Your task to perform on an android device: turn off smart reply in the gmail app Image 0: 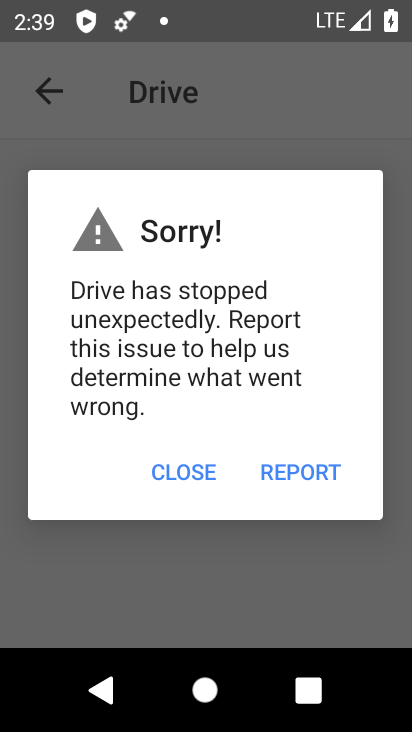
Step 0: press home button
Your task to perform on an android device: turn off smart reply in the gmail app Image 1: 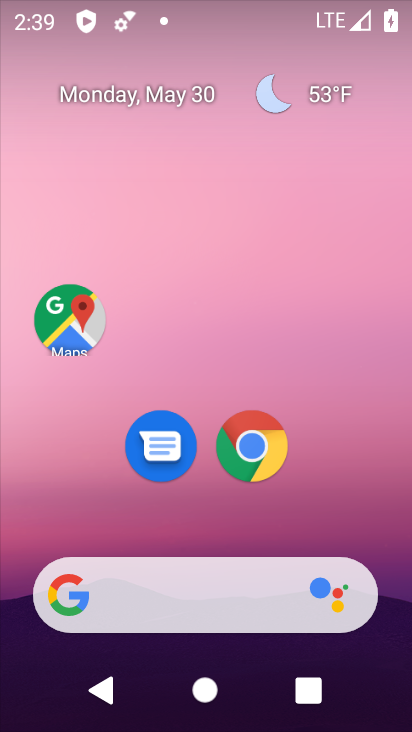
Step 1: drag from (319, 485) to (237, 9)
Your task to perform on an android device: turn off smart reply in the gmail app Image 2: 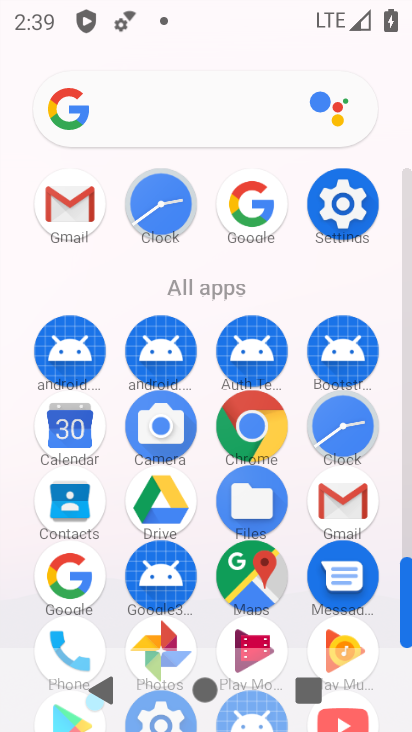
Step 2: click (67, 202)
Your task to perform on an android device: turn off smart reply in the gmail app Image 3: 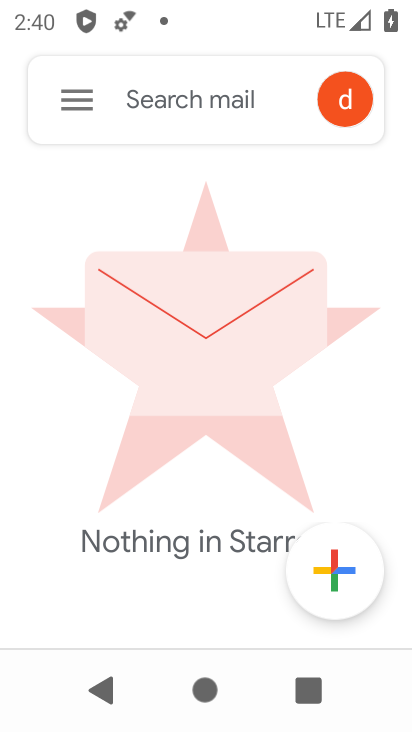
Step 3: click (83, 96)
Your task to perform on an android device: turn off smart reply in the gmail app Image 4: 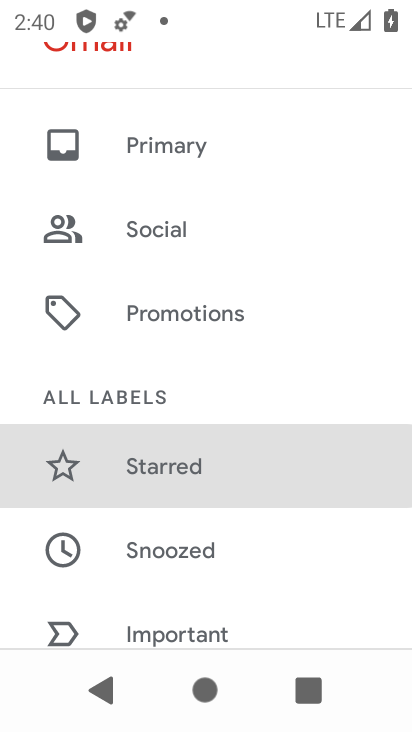
Step 4: drag from (154, 507) to (213, 335)
Your task to perform on an android device: turn off smart reply in the gmail app Image 5: 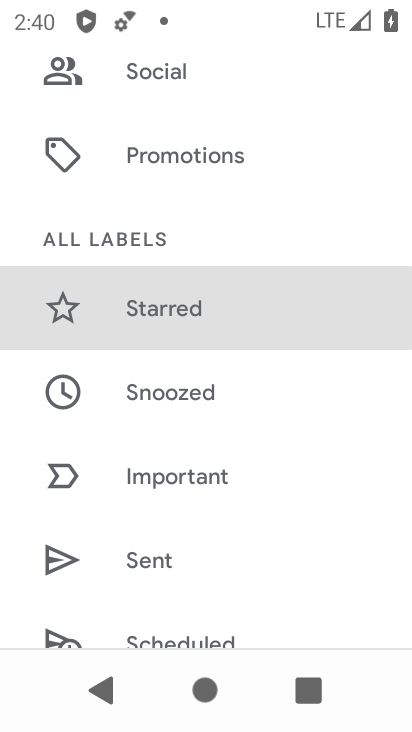
Step 5: drag from (165, 440) to (211, 302)
Your task to perform on an android device: turn off smart reply in the gmail app Image 6: 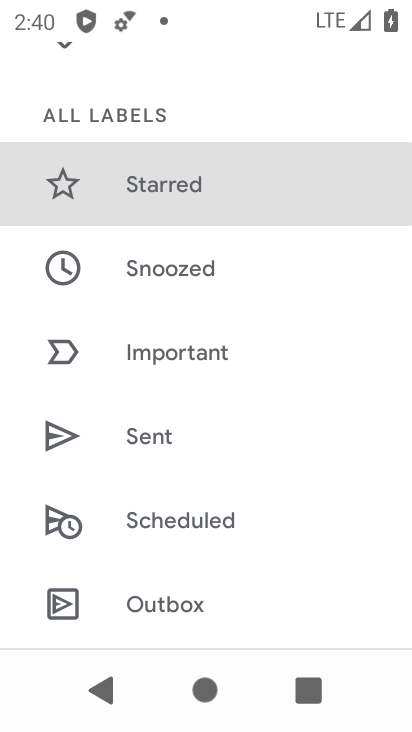
Step 6: drag from (145, 484) to (242, 372)
Your task to perform on an android device: turn off smart reply in the gmail app Image 7: 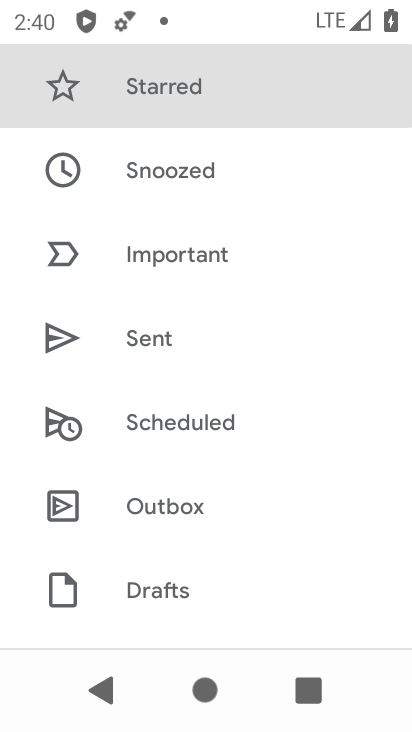
Step 7: drag from (136, 537) to (247, 390)
Your task to perform on an android device: turn off smart reply in the gmail app Image 8: 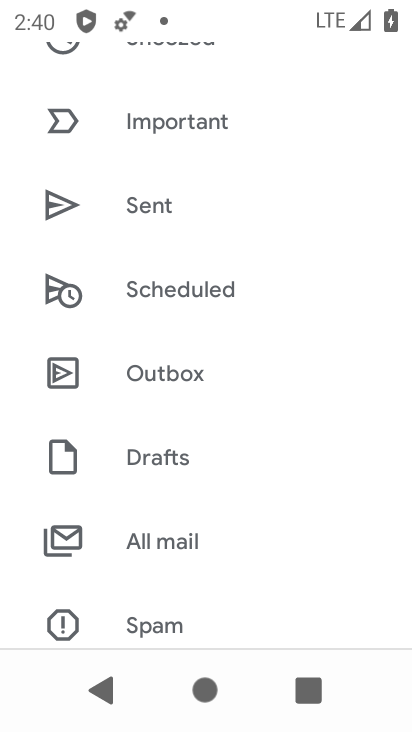
Step 8: drag from (178, 507) to (232, 428)
Your task to perform on an android device: turn off smart reply in the gmail app Image 9: 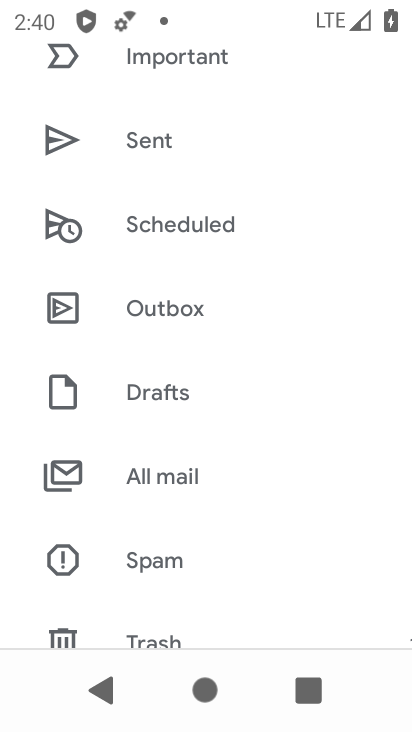
Step 9: drag from (163, 526) to (225, 420)
Your task to perform on an android device: turn off smart reply in the gmail app Image 10: 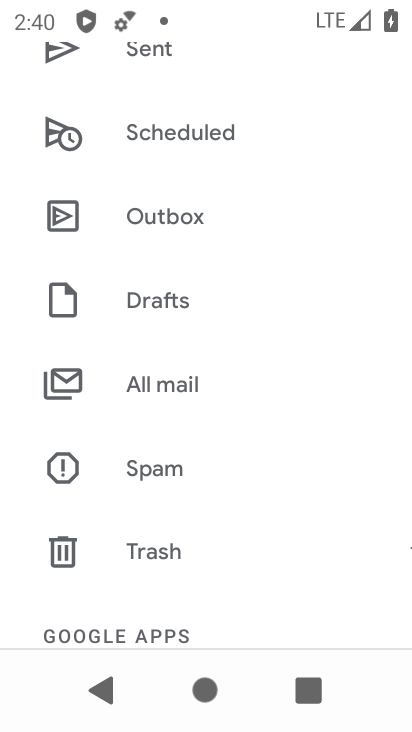
Step 10: drag from (161, 522) to (235, 424)
Your task to perform on an android device: turn off smart reply in the gmail app Image 11: 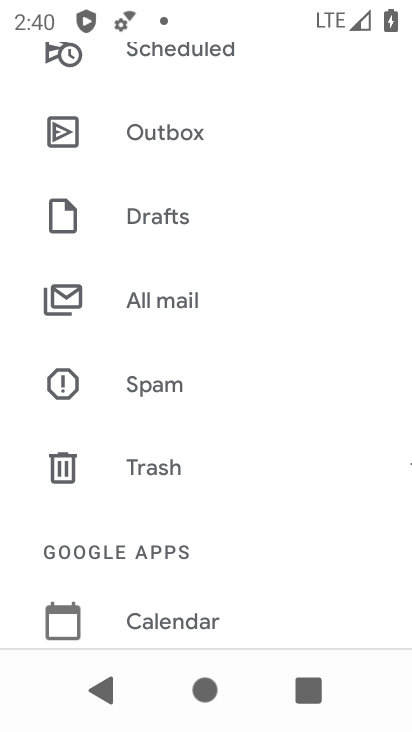
Step 11: drag from (144, 563) to (205, 455)
Your task to perform on an android device: turn off smart reply in the gmail app Image 12: 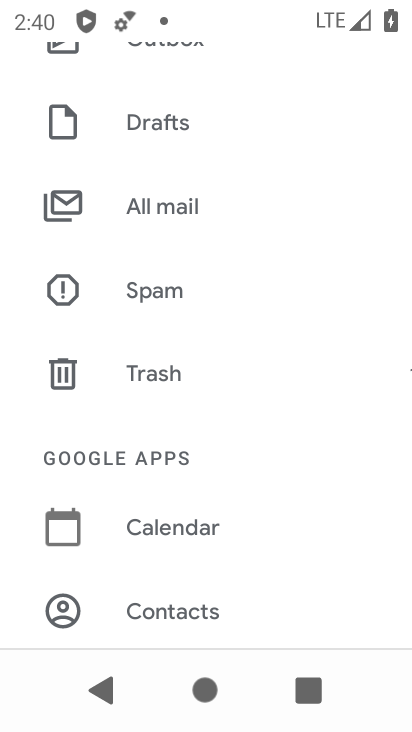
Step 12: drag from (156, 583) to (243, 469)
Your task to perform on an android device: turn off smart reply in the gmail app Image 13: 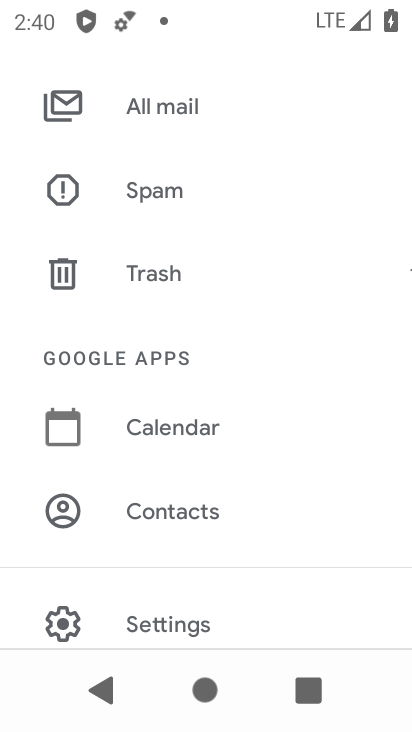
Step 13: drag from (147, 595) to (246, 461)
Your task to perform on an android device: turn off smart reply in the gmail app Image 14: 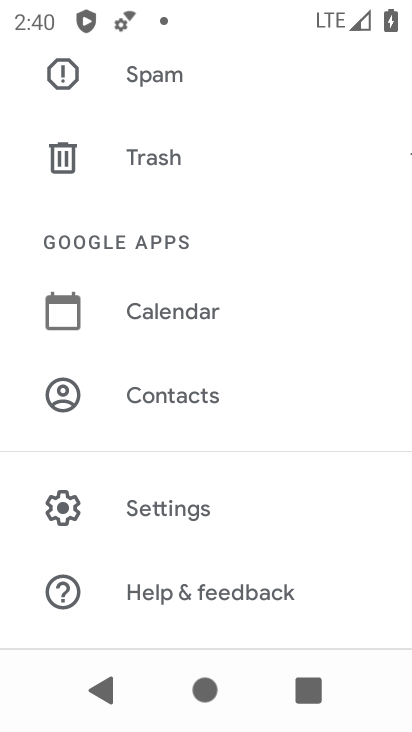
Step 14: click (193, 512)
Your task to perform on an android device: turn off smart reply in the gmail app Image 15: 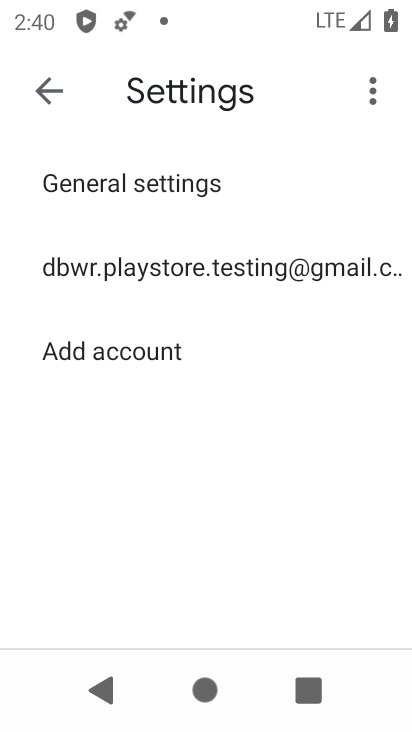
Step 15: click (123, 276)
Your task to perform on an android device: turn off smart reply in the gmail app Image 16: 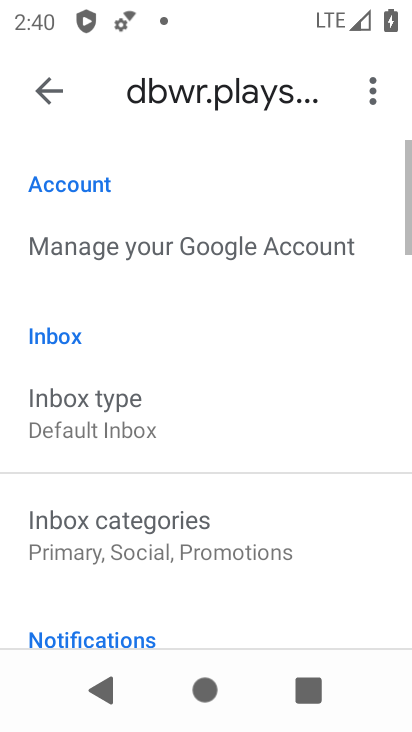
Step 16: drag from (123, 363) to (199, 233)
Your task to perform on an android device: turn off smart reply in the gmail app Image 17: 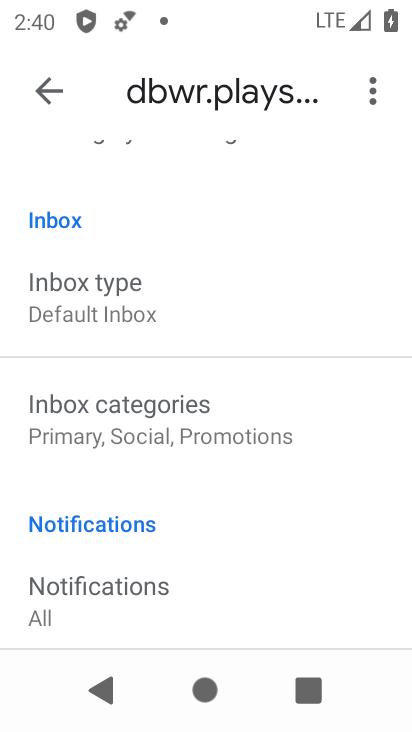
Step 17: drag from (143, 381) to (204, 291)
Your task to perform on an android device: turn off smart reply in the gmail app Image 18: 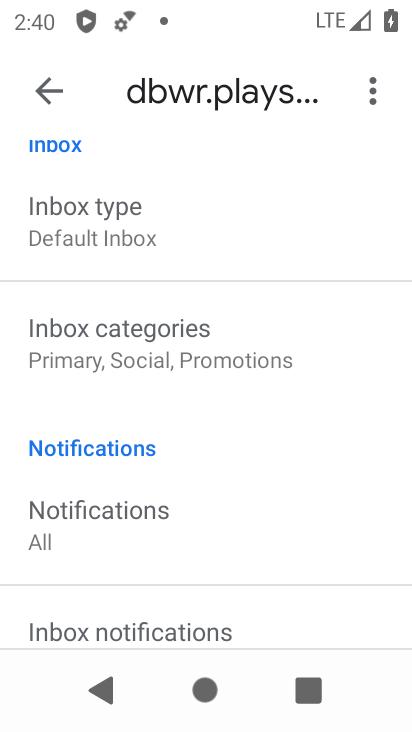
Step 18: drag from (126, 412) to (195, 289)
Your task to perform on an android device: turn off smart reply in the gmail app Image 19: 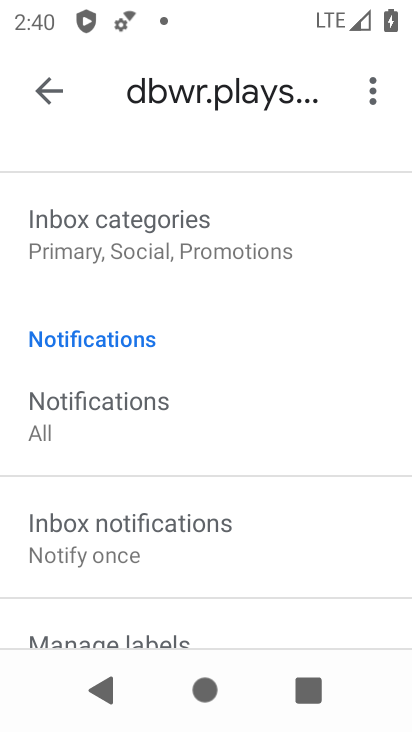
Step 19: drag from (130, 441) to (228, 321)
Your task to perform on an android device: turn off smart reply in the gmail app Image 20: 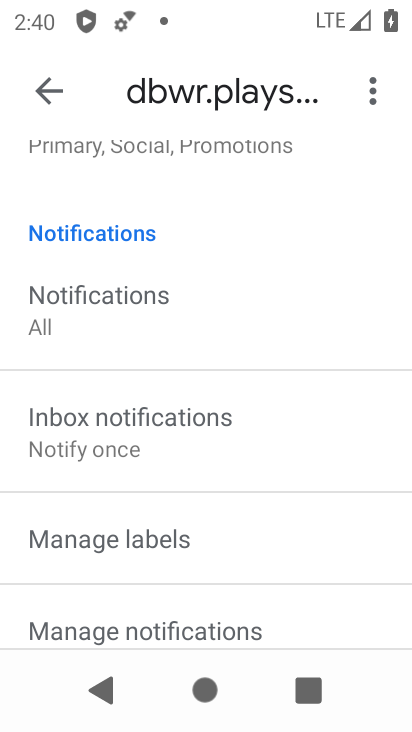
Step 20: drag from (155, 465) to (250, 347)
Your task to perform on an android device: turn off smart reply in the gmail app Image 21: 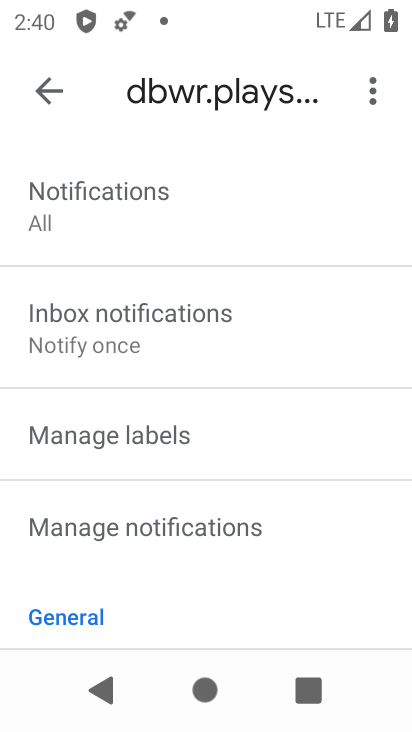
Step 21: drag from (152, 493) to (246, 380)
Your task to perform on an android device: turn off smart reply in the gmail app Image 22: 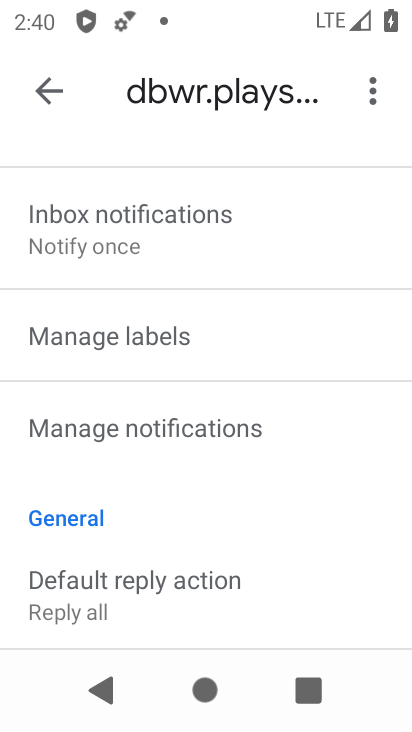
Step 22: drag from (149, 515) to (240, 403)
Your task to perform on an android device: turn off smart reply in the gmail app Image 23: 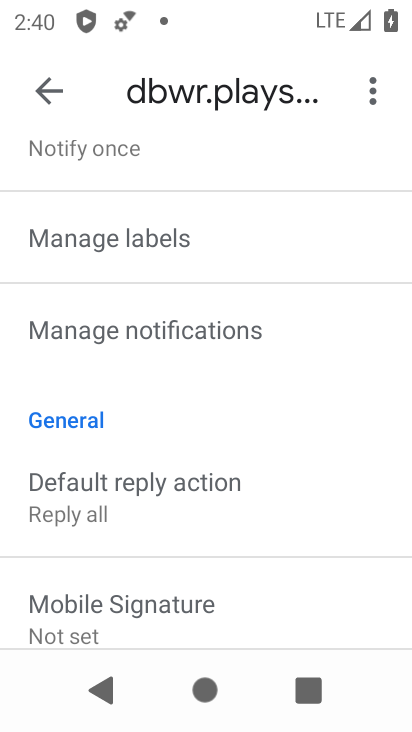
Step 23: drag from (141, 524) to (241, 404)
Your task to perform on an android device: turn off smart reply in the gmail app Image 24: 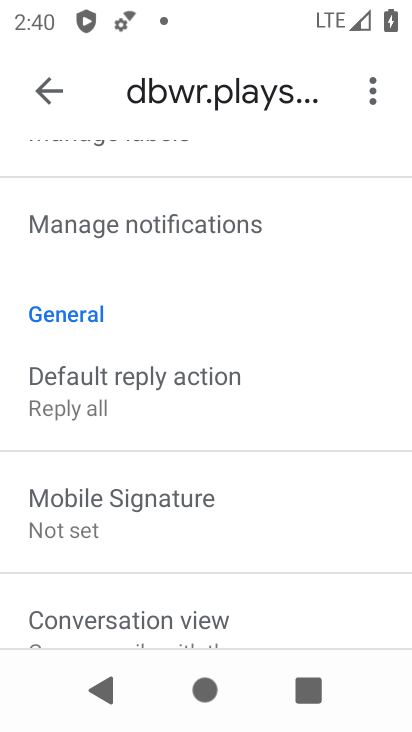
Step 24: drag from (143, 546) to (236, 434)
Your task to perform on an android device: turn off smart reply in the gmail app Image 25: 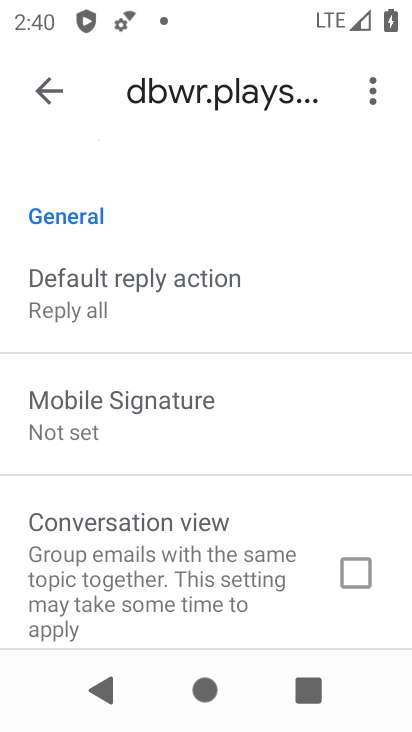
Step 25: drag from (135, 570) to (252, 426)
Your task to perform on an android device: turn off smart reply in the gmail app Image 26: 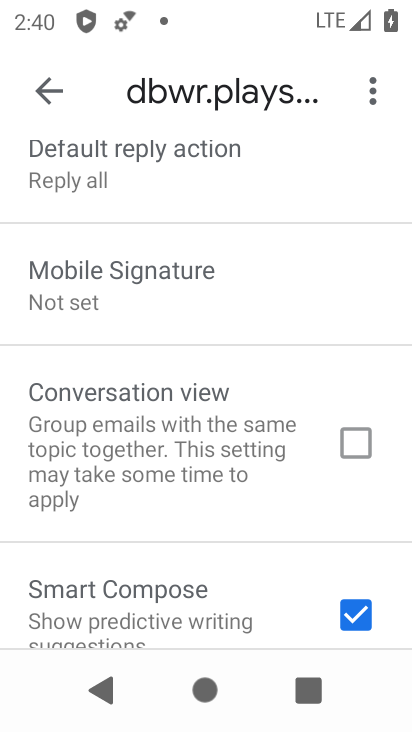
Step 26: drag from (211, 523) to (270, 445)
Your task to perform on an android device: turn off smart reply in the gmail app Image 27: 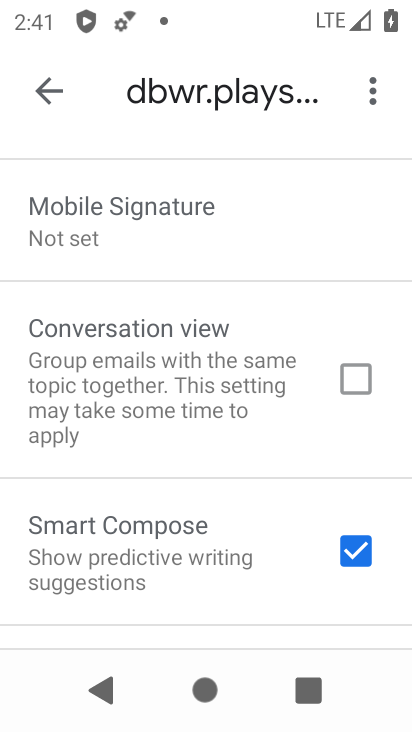
Step 27: drag from (157, 591) to (242, 450)
Your task to perform on an android device: turn off smart reply in the gmail app Image 28: 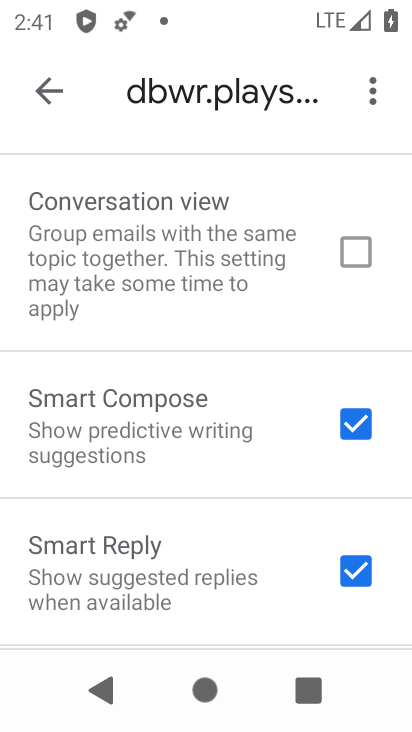
Step 28: click (349, 573)
Your task to perform on an android device: turn off smart reply in the gmail app Image 29: 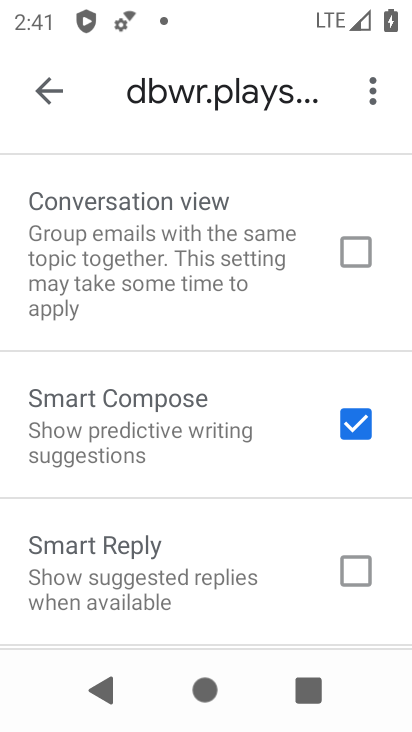
Step 29: task complete